Your task to perform on an android device: check android version Image 0: 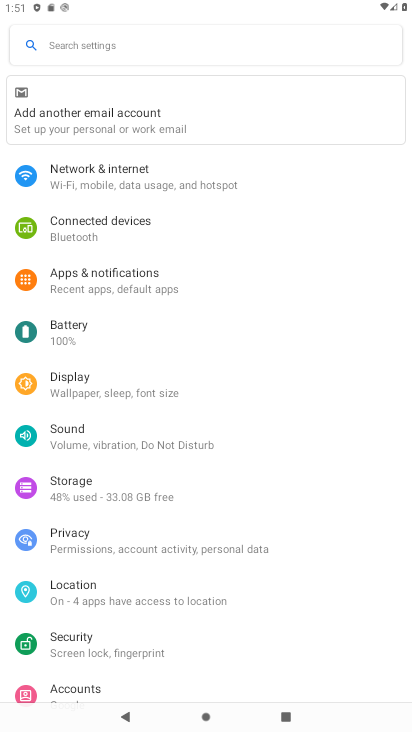
Step 0: drag from (217, 452) to (277, 74)
Your task to perform on an android device: check android version Image 1: 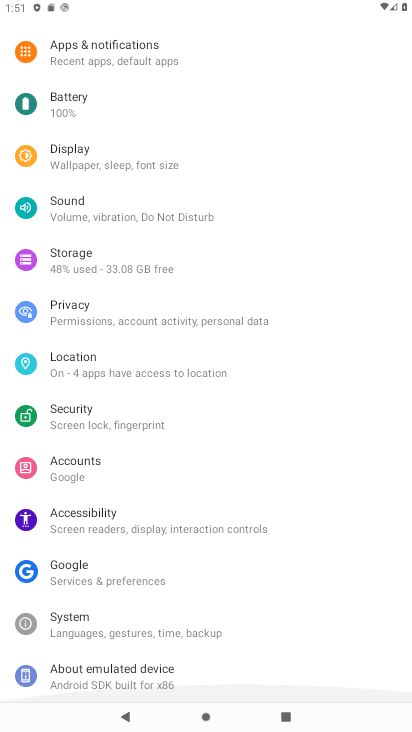
Step 1: click (117, 667)
Your task to perform on an android device: check android version Image 2: 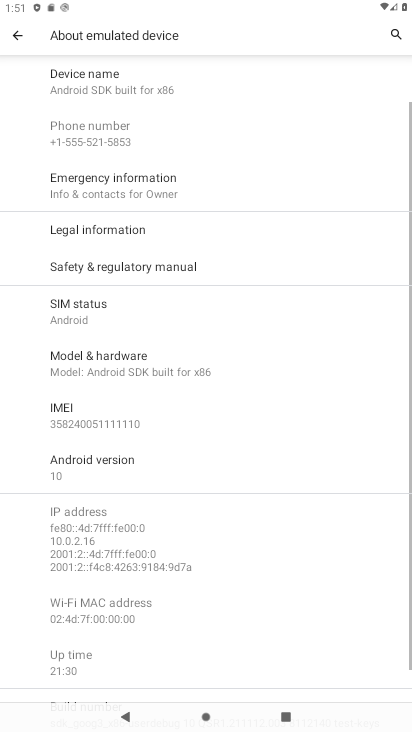
Step 2: drag from (127, 664) to (282, 109)
Your task to perform on an android device: check android version Image 3: 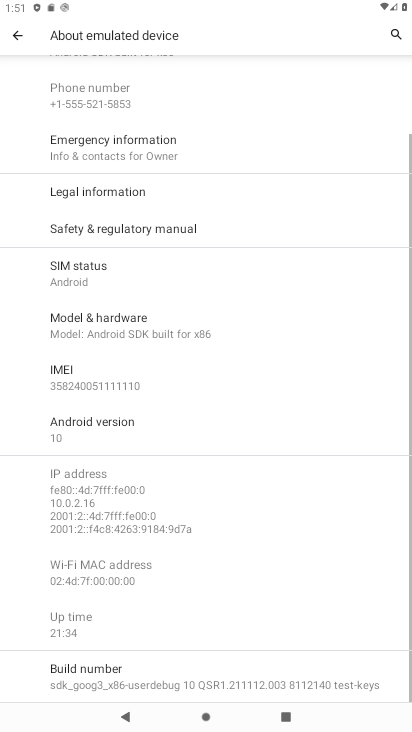
Step 3: click (134, 427)
Your task to perform on an android device: check android version Image 4: 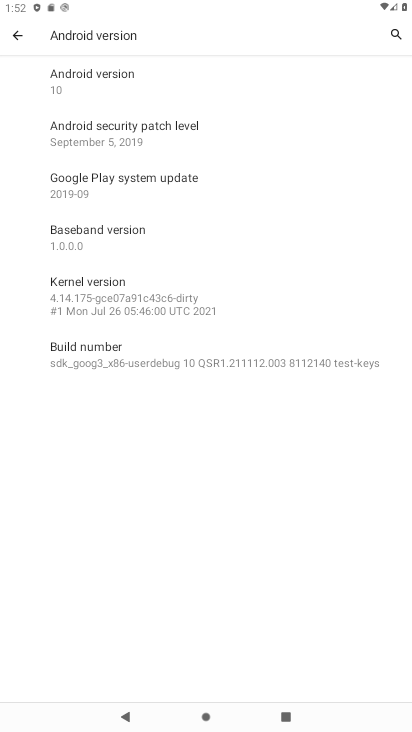
Step 4: task complete